Your task to perform on an android device: toggle location history Image 0: 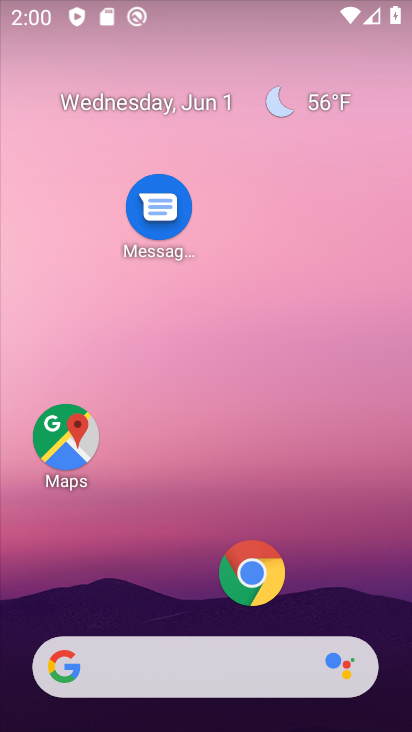
Step 0: drag from (182, 595) to (227, 51)
Your task to perform on an android device: toggle location history Image 1: 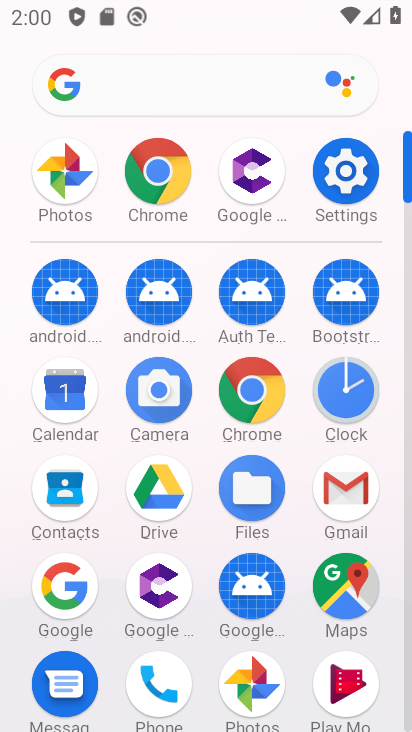
Step 1: click (346, 167)
Your task to perform on an android device: toggle location history Image 2: 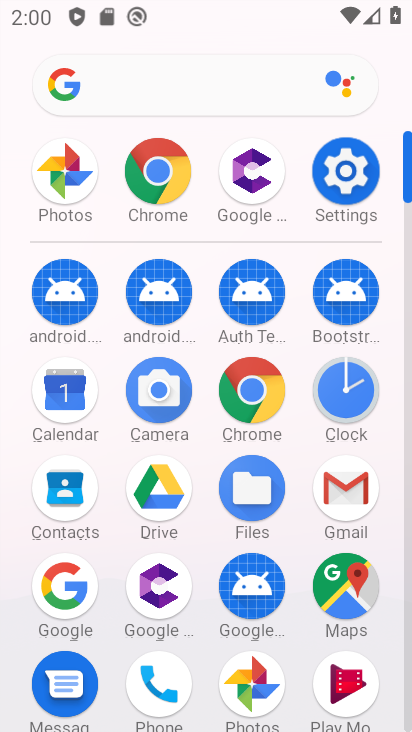
Step 2: click (346, 167)
Your task to perform on an android device: toggle location history Image 3: 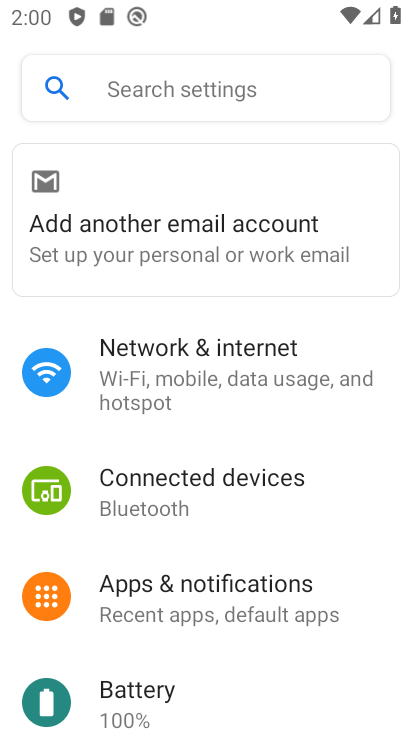
Step 3: drag from (170, 550) to (262, 62)
Your task to perform on an android device: toggle location history Image 4: 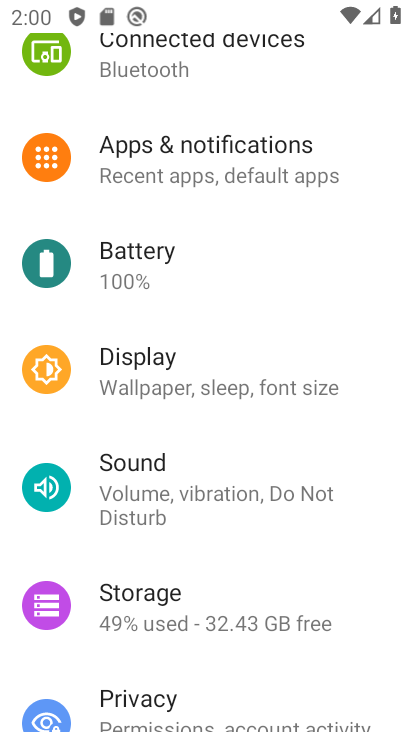
Step 4: drag from (178, 593) to (255, 225)
Your task to perform on an android device: toggle location history Image 5: 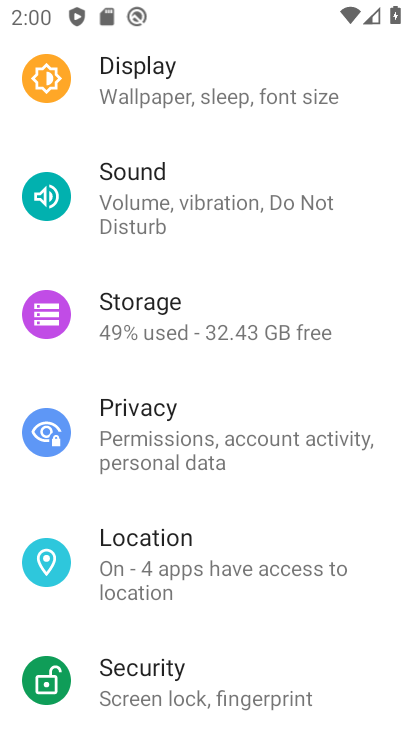
Step 5: click (181, 586)
Your task to perform on an android device: toggle location history Image 6: 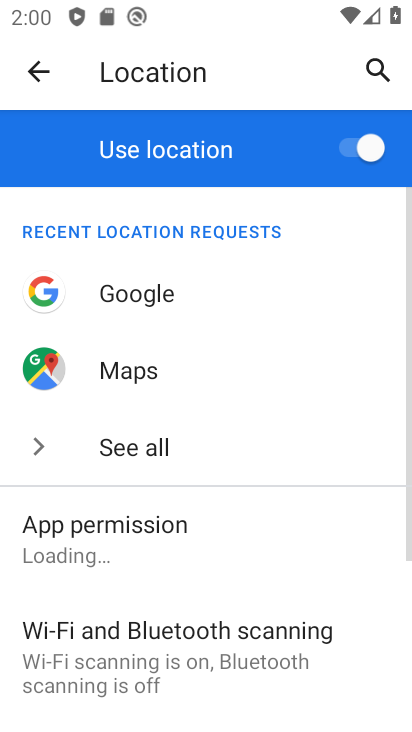
Step 6: drag from (177, 577) to (229, 371)
Your task to perform on an android device: toggle location history Image 7: 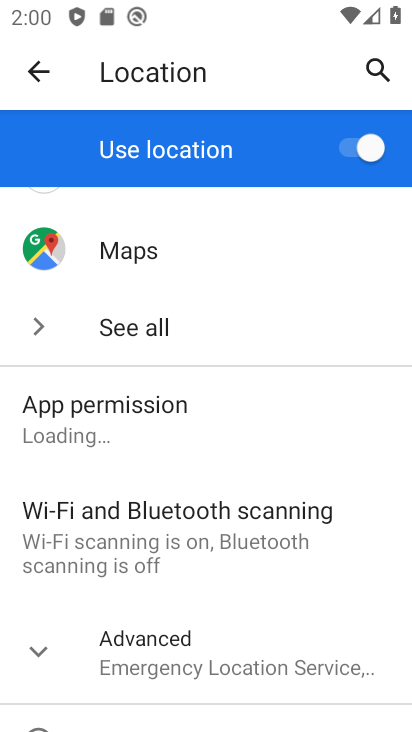
Step 7: click (187, 668)
Your task to perform on an android device: toggle location history Image 8: 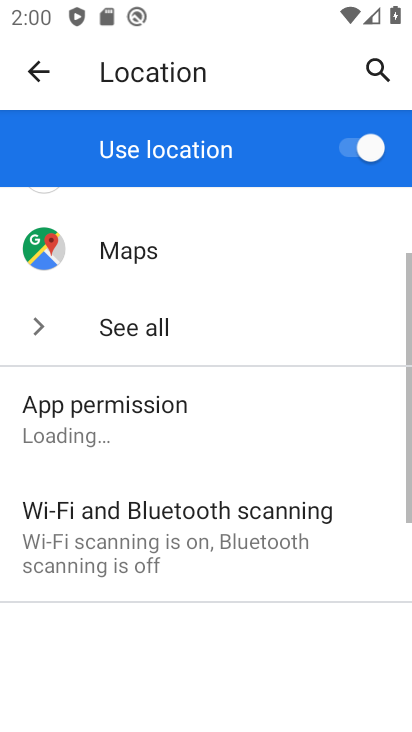
Step 8: drag from (186, 667) to (349, 148)
Your task to perform on an android device: toggle location history Image 9: 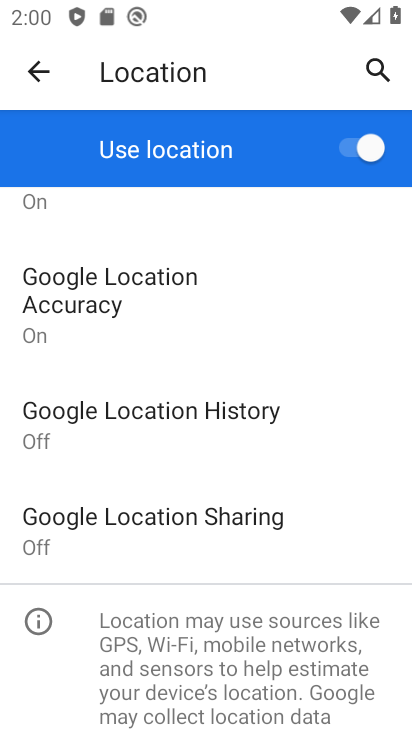
Step 9: click (110, 435)
Your task to perform on an android device: toggle location history Image 10: 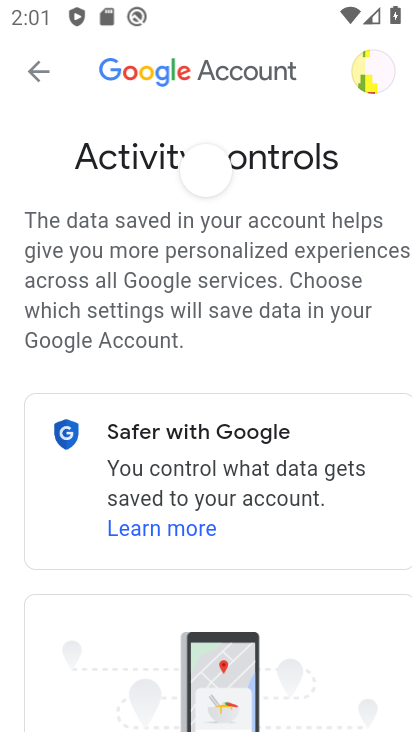
Step 10: drag from (248, 645) to (339, 279)
Your task to perform on an android device: toggle location history Image 11: 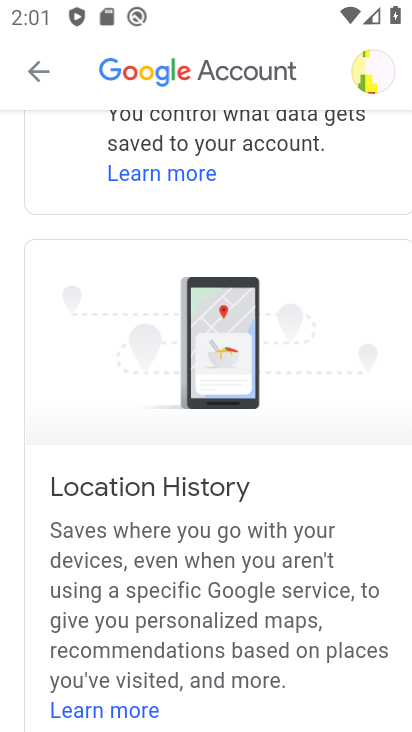
Step 11: drag from (218, 615) to (284, 308)
Your task to perform on an android device: toggle location history Image 12: 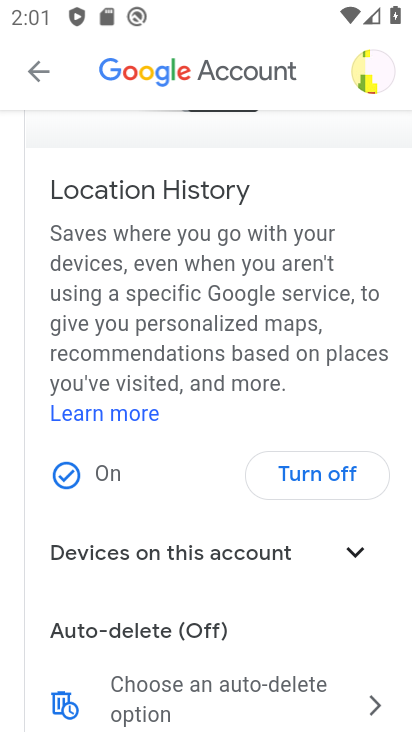
Step 12: drag from (170, 550) to (228, 226)
Your task to perform on an android device: toggle location history Image 13: 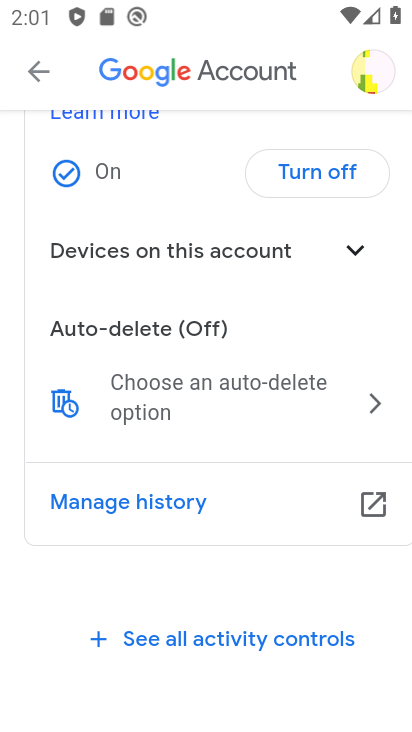
Step 13: drag from (200, 235) to (286, 188)
Your task to perform on an android device: toggle location history Image 14: 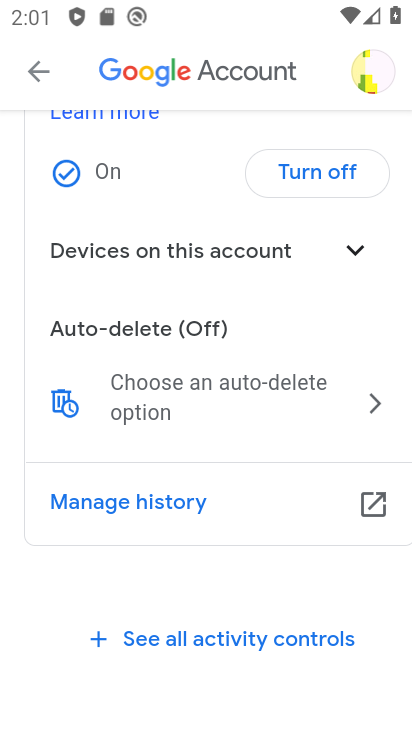
Step 14: click (319, 192)
Your task to perform on an android device: toggle location history Image 15: 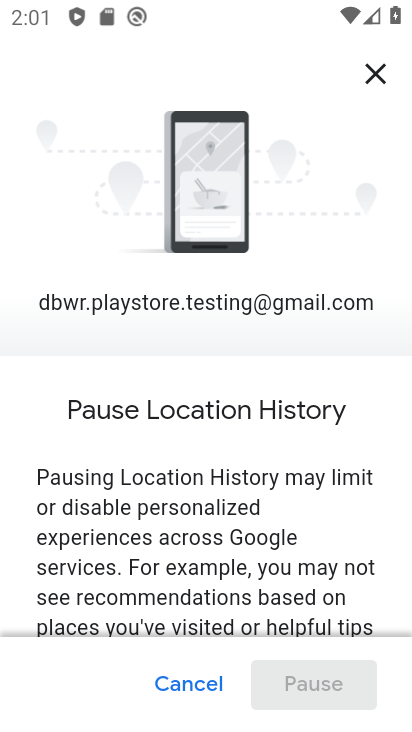
Step 15: drag from (185, 573) to (201, 4)
Your task to perform on an android device: toggle location history Image 16: 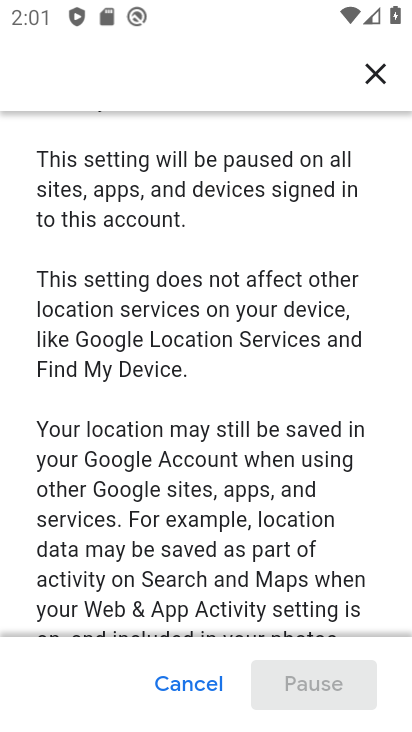
Step 16: drag from (238, 605) to (332, 4)
Your task to perform on an android device: toggle location history Image 17: 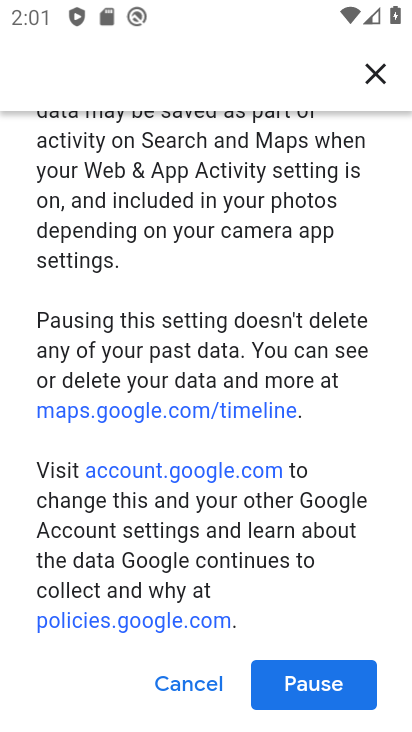
Step 17: drag from (202, 584) to (281, 170)
Your task to perform on an android device: toggle location history Image 18: 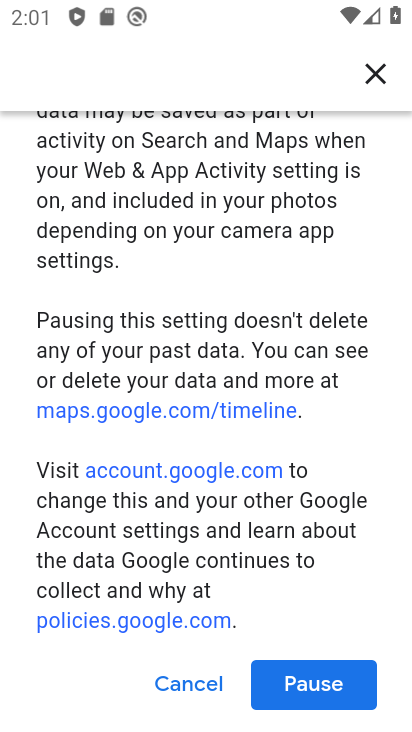
Step 18: click (301, 697)
Your task to perform on an android device: toggle location history Image 19: 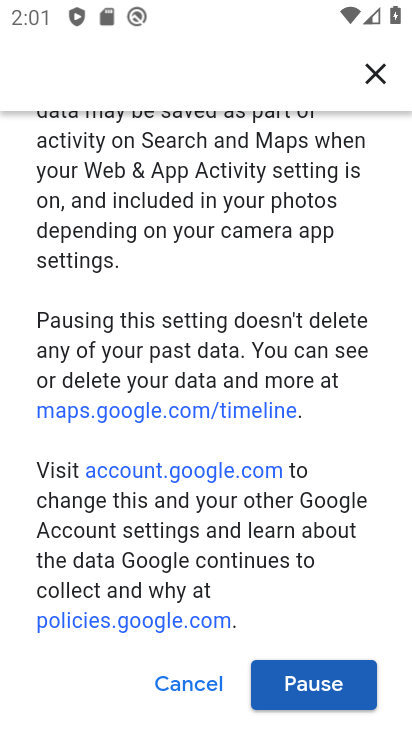
Step 19: task complete